Your task to perform on an android device: delete the emails in spam in the gmail app Image 0: 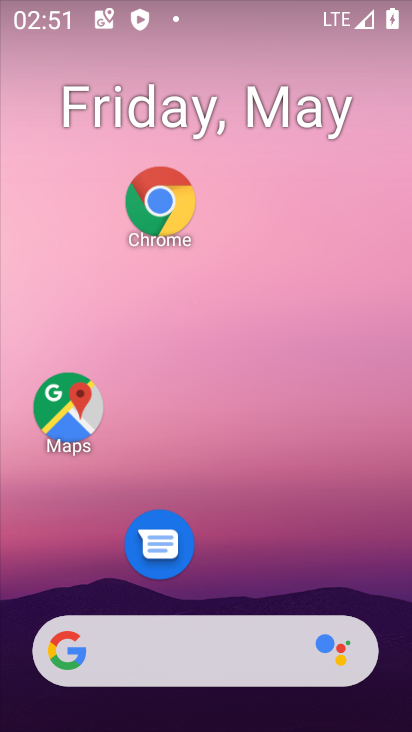
Step 0: drag from (287, 584) to (293, 160)
Your task to perform on an android device: delete the emails in spam in the gmail app Image 1: 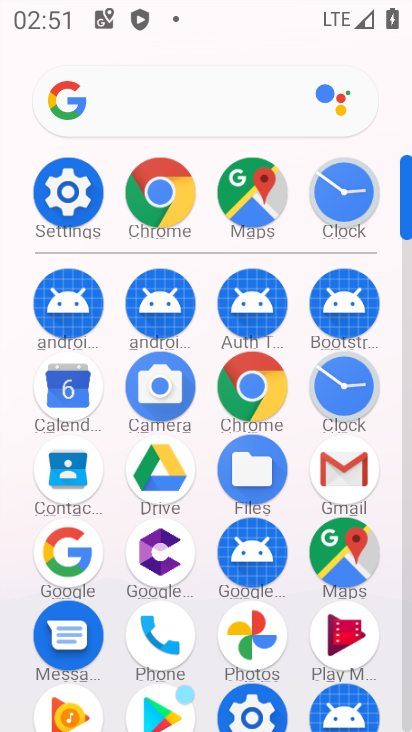
Step 1: click (336, 486)
Your task to perform on an android device: delete the emails in spam in the gmail app Image 2: 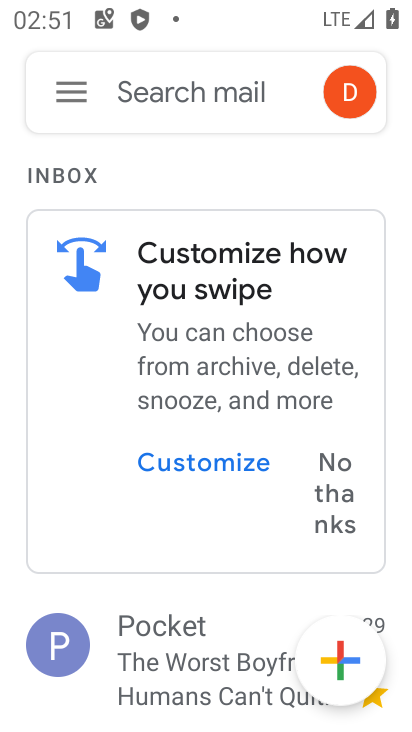
Step 2: click (86, 85)
Your task to perform on an android device: delete the emails in spam in the gmail app Image 3: 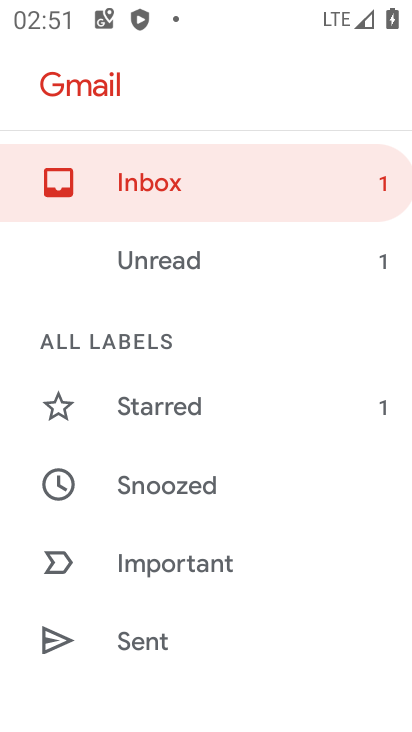
Step 3: drag from (210, 490) to (281, 142)
Your task to perform on an android device: delete the emails in spam in the gmail app Image 4: 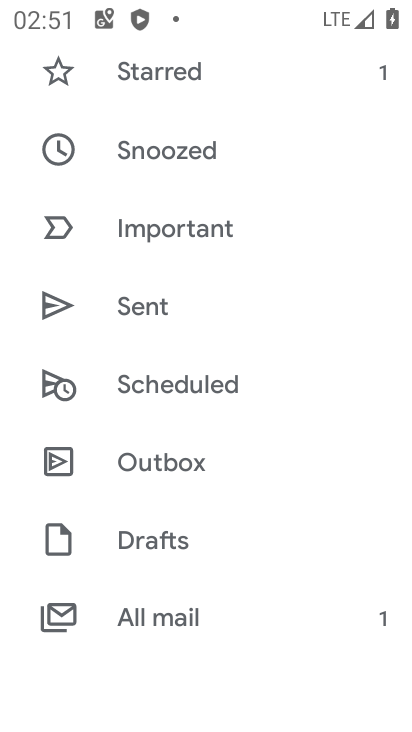
Step 4: drag from (238, 539) to (264, 233)
Your task to perform on an android device: delete the emails in spam in the gmail app Image 5: 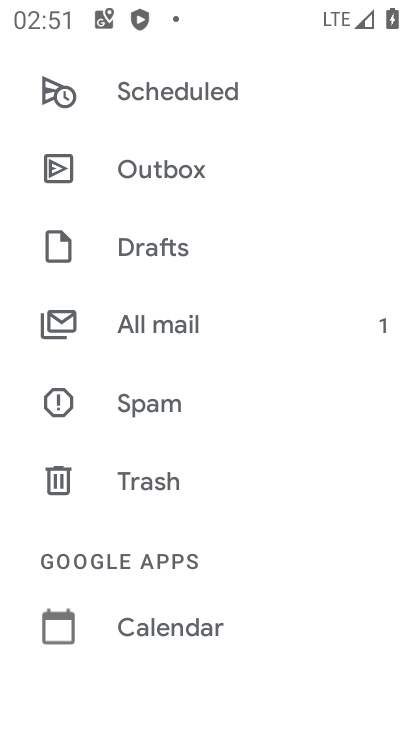
Step 5: click (234, 405)
Your task to perform on an android device: delete the emails in spam in the gmail app Image 6: 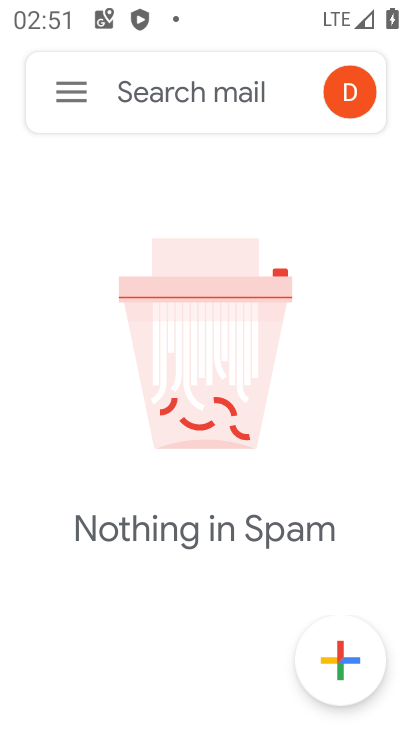
Step 6: task complete